Your task to perform on an android device: Open calendar and show me the fourth week of next month Image 0: 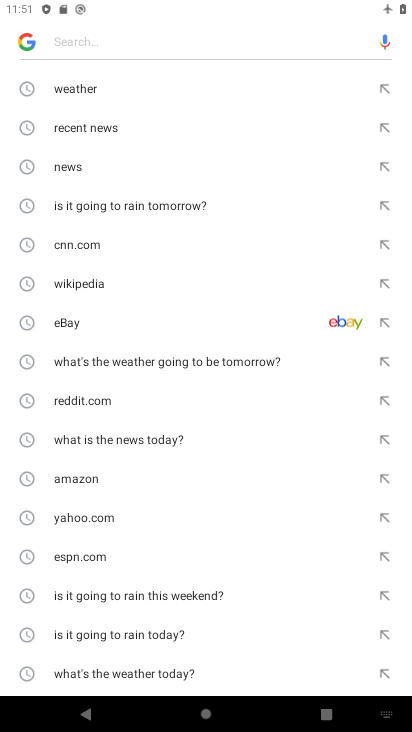
Step 0: press home button
Your task to perform on an android device: Open calendar and show me the fourth week of next month Image 1: 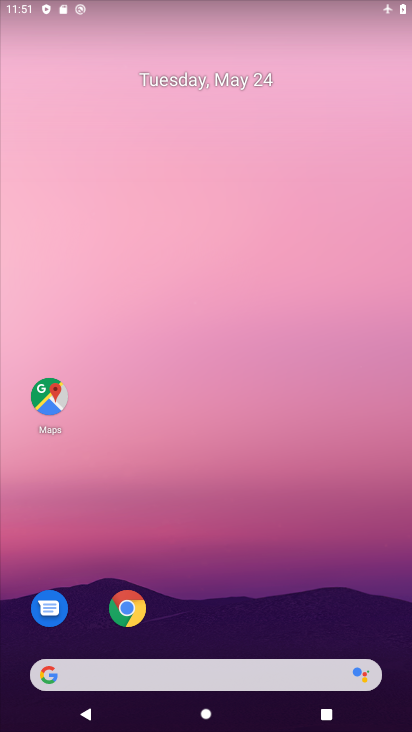
Step 1: drag from (251, 618) to (209, 162)
Your task to perform on an android device: Open calendar and show me the fourth week of next month Image 2: 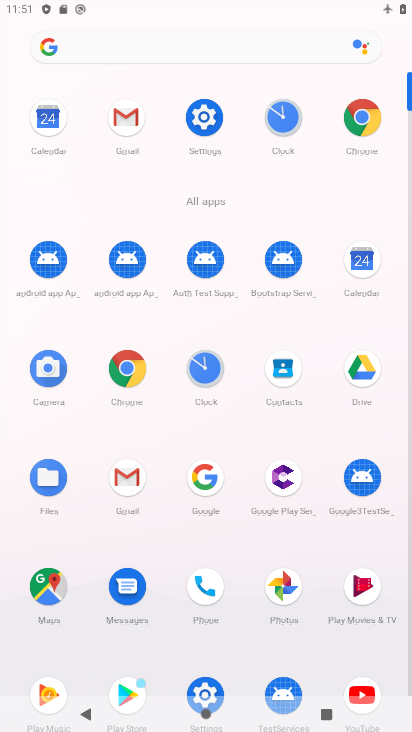
Step 2: click (355, 261)
Your task to perform on an android device: Open calendar and show me the fourth week of next month Image 3: 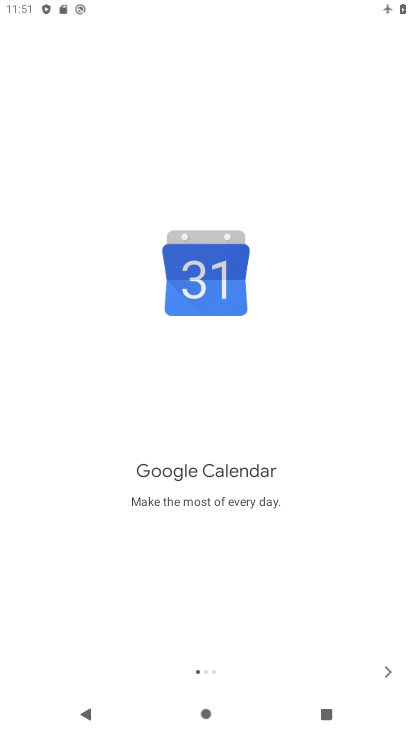
Step 3: click (382, 670)
Your task to perform on an android device: Open calendar and show me the fourth week of next month Image 4: 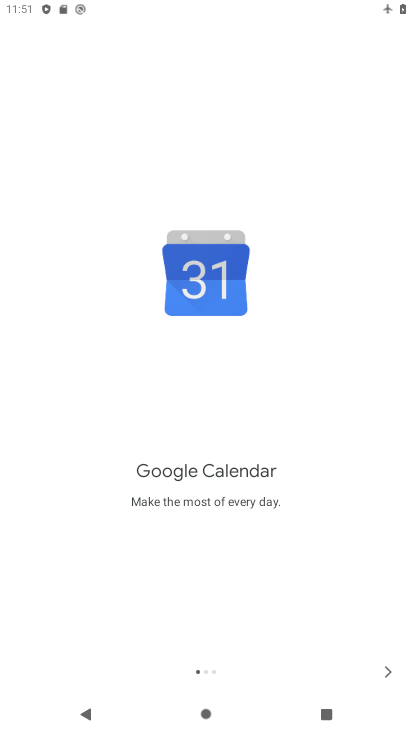
Step 4: click (382, 670)
Your task to perform on an android device: Open calendar and show me the fourth week of next month Image 5: 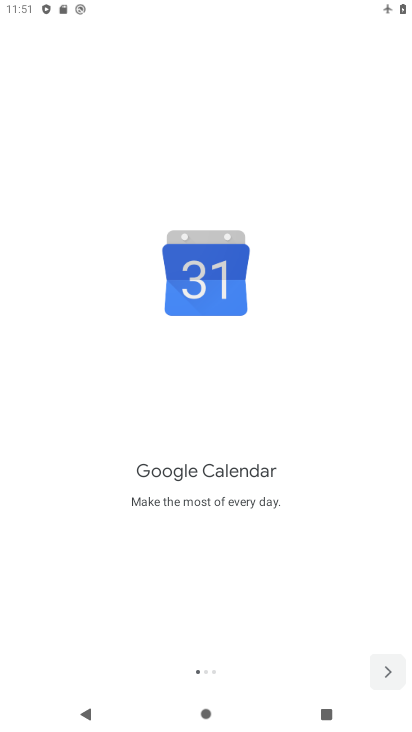
Step 5: click (382, 670)
Your task to perform on an android device: Open calendar and show me the fourth week of next month Image 6: 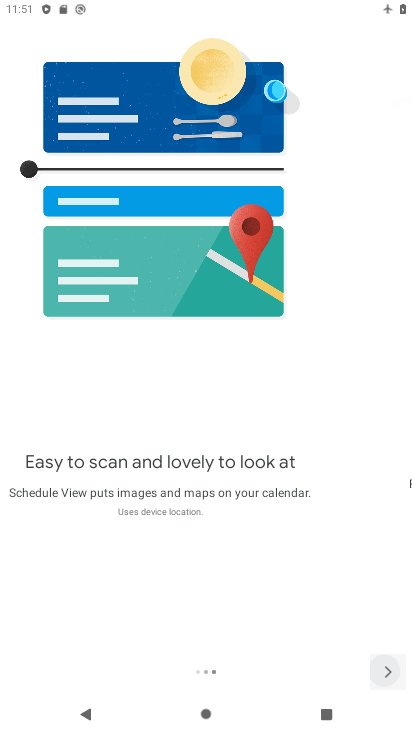
Step 6: click (382, 670)
Your task to perform on an android device: Open calendar and show me the fourth week of next month Image 7: 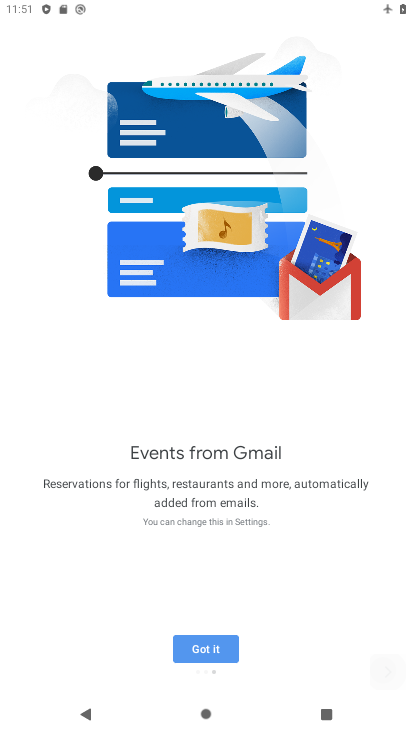
Step 7: click (382, 670)
Your task to perform on an android device: Open calendar and show me the fourth week of next month Image 8: 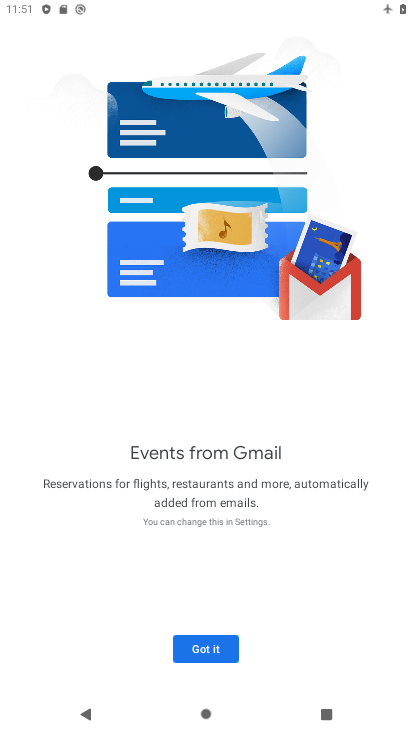
Step 8: click (206, 644)
Your task to perform on an android device: Open calendar and show me the fourth week of next month Image 9: 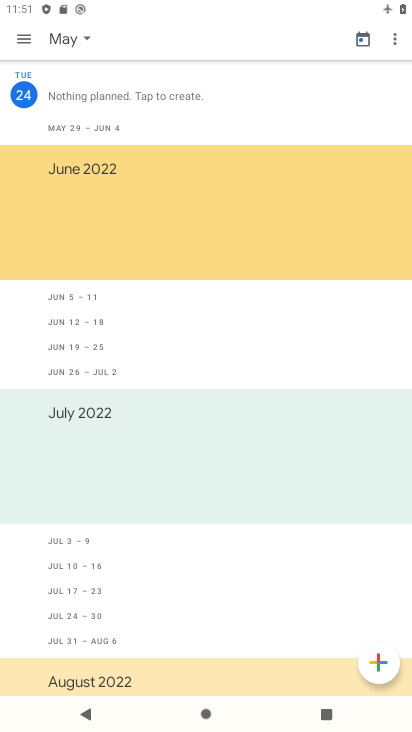
Step 9: click (87, 43)
Your task to perform on an android device: Open calendar and show me the fourth week of next month Image 10: 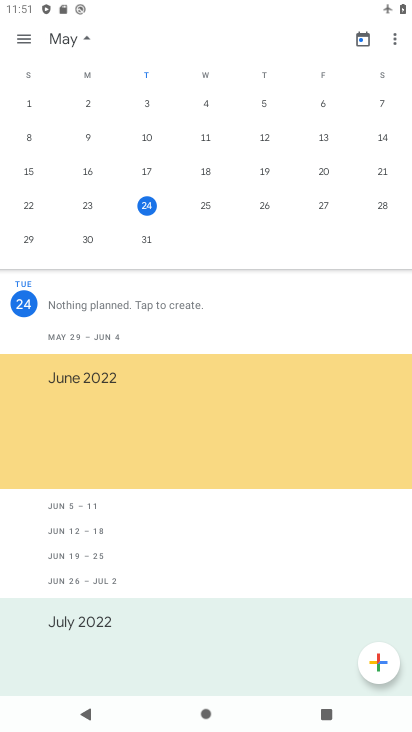
Step 10: drag from (387, 191) to (5, 157)
Your task to perform on an android device: Open calendar and show me the fourth week of next month Image 11: 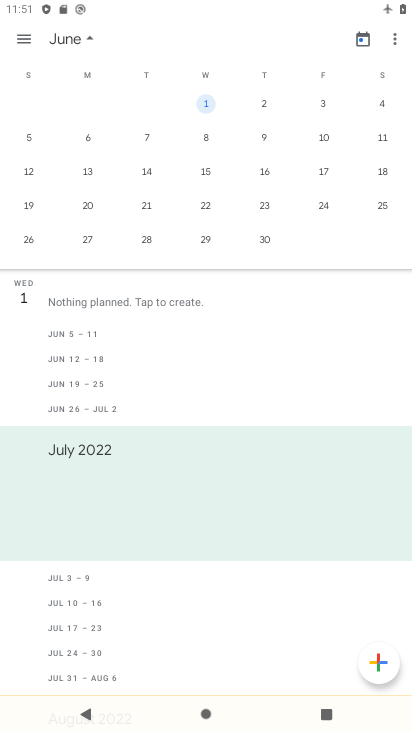
Step 11: click (110, 203)
Your task to perform on an android device: Open calendar and show me the fourth week of next month Image 12: 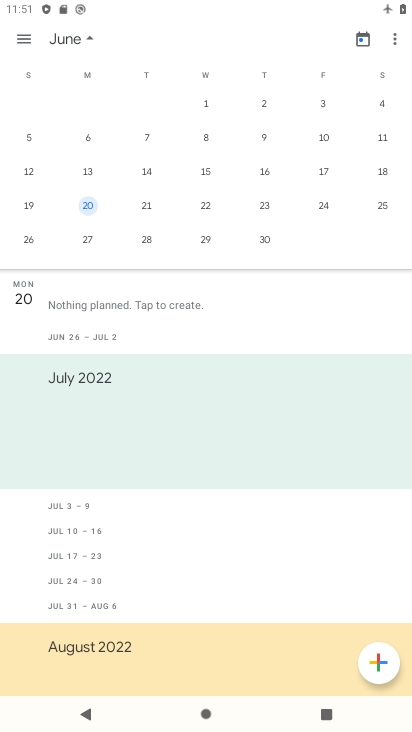
Step 12: task complete